Your task to perform on an android device: turn vacation reply on in the gmail app Image 0: 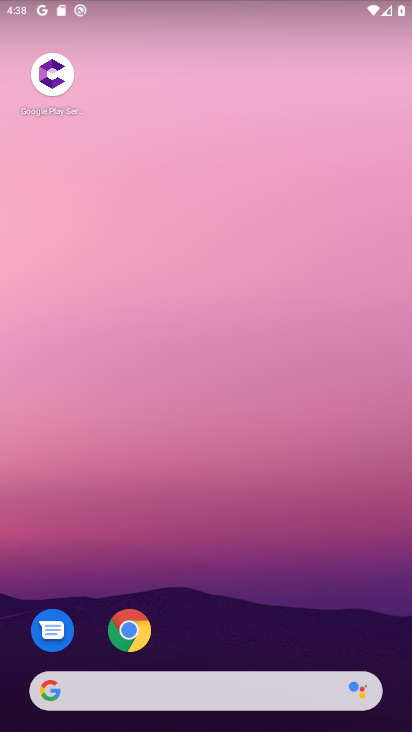
Step 0: press home button
Your task to perform on an android device: turn vacation reply on in the gmail app Image 1: 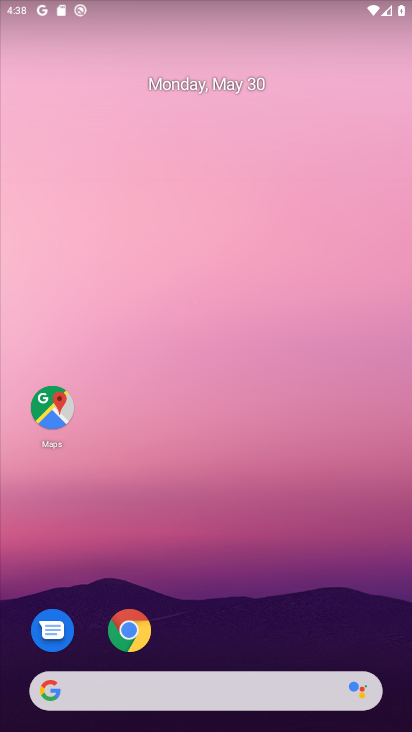
Step 1: drag from (246, 663) to (245, 349)
Your task to perform on an android device: turn vacation reply on in the gmail app Image 2: 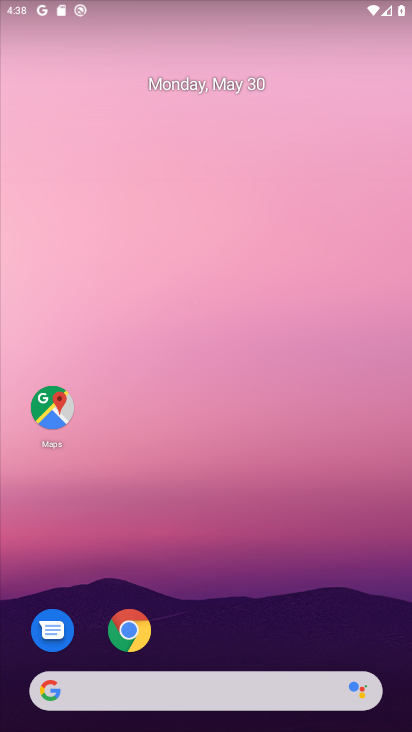
Step 2: drag from (230, 630) to (285, 216)
Your task to perform on an android device: turn vacation reply on in the gmail app Image 3: 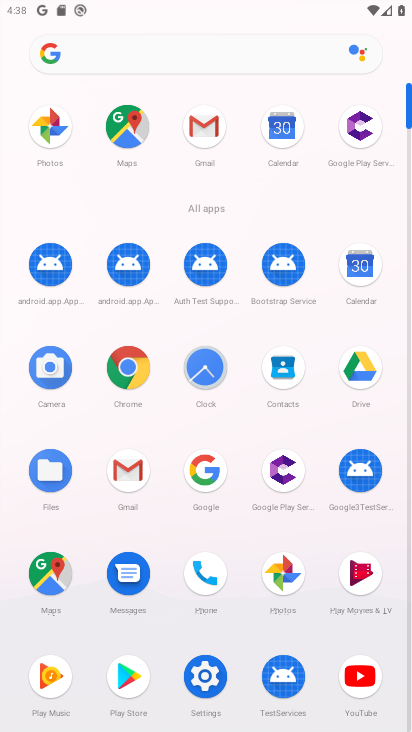
Step 3: click (209, 133)
Your task to perform on an android device: turn vacation reply on in the gmail app Image 4: 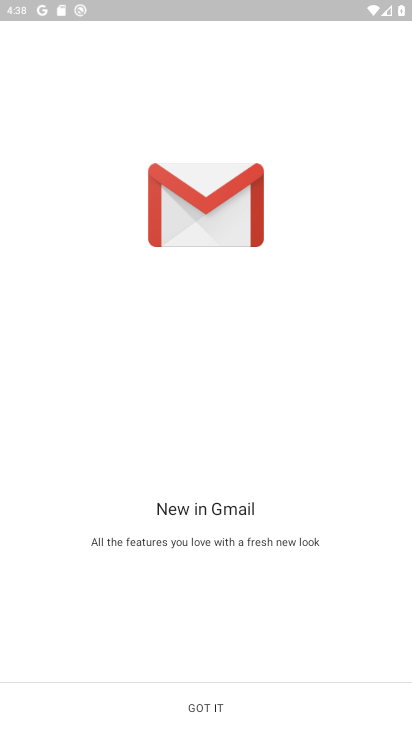
Step 4: click (203, 714)
Your task to perform on an android device: turn vacation reply on in the gmail app Image 5: 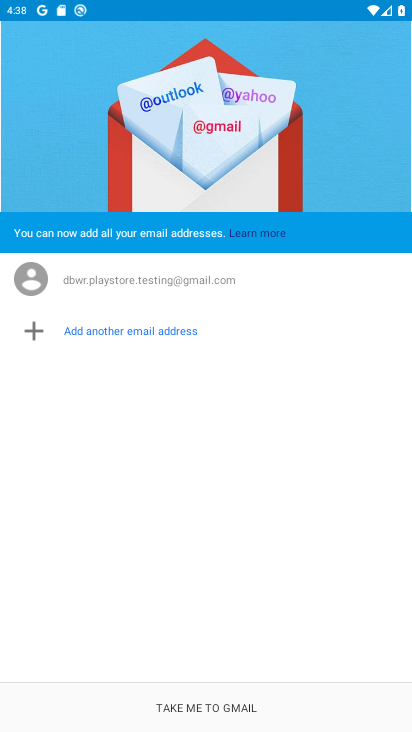
Step 5: click (203, 714)
Your task to perform on an android device: turn vacation reply on in the gmail app Image 6: 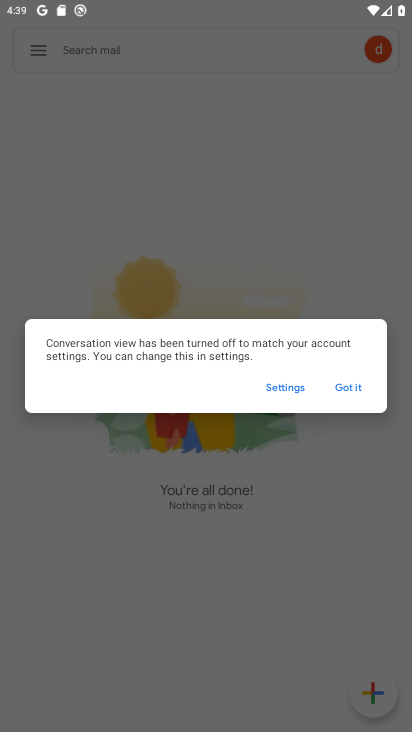
Step 6: click (369, 391)
Your task to perform on an android device: turn vacation reply on in the gmail app Image 7: 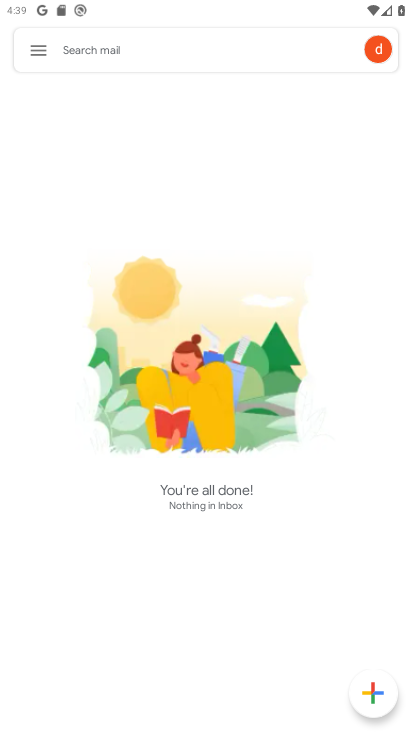
Step 7: click (49, 64)
Your task to perform on an android device: turn vacation reply on in the gmail app Image 8: 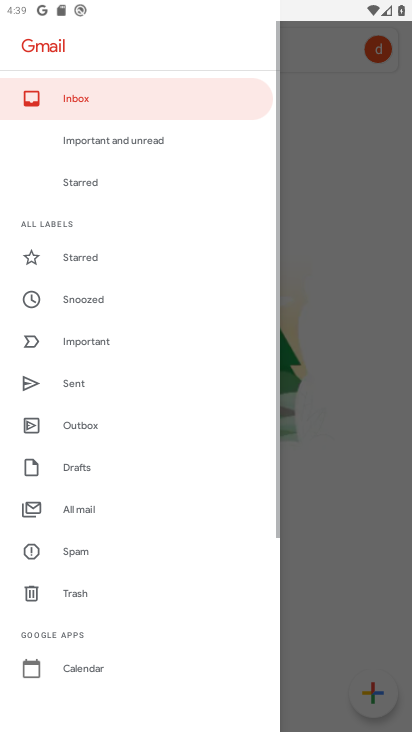
Step 8: drag from (145, 639) to (190, 374)
Your task to perform on an android device: turn vacation reply on in the gmail app Image 9: 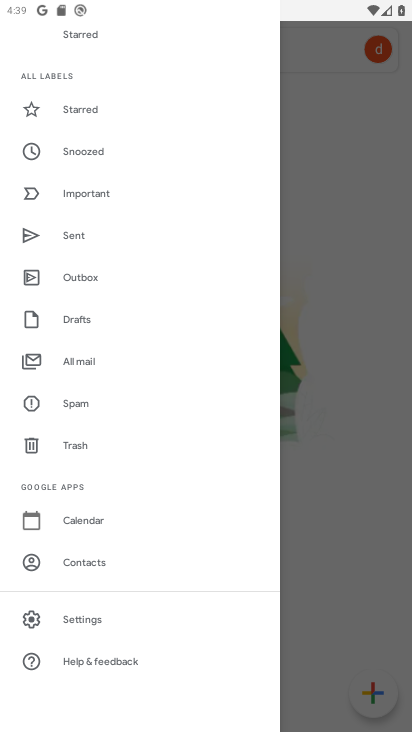
Step 9: click (75, 615)
Your task to perform on an android device: turn vacation reply on in the gmail app Image 10: 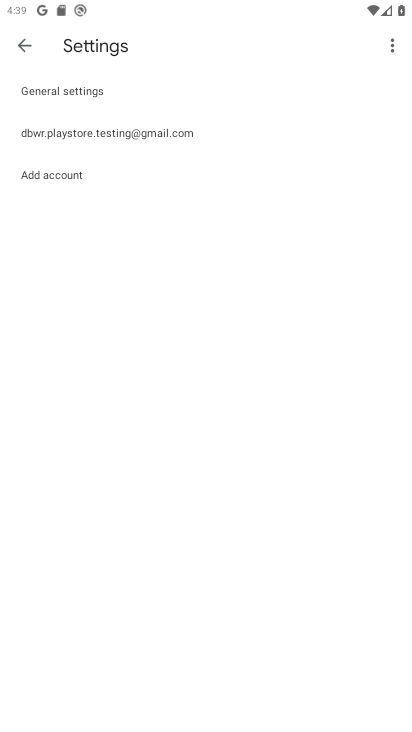
Step 10: click (93, 127)
Your task to perform on an android device: turn vacation reply on in the gmail app Image 11: 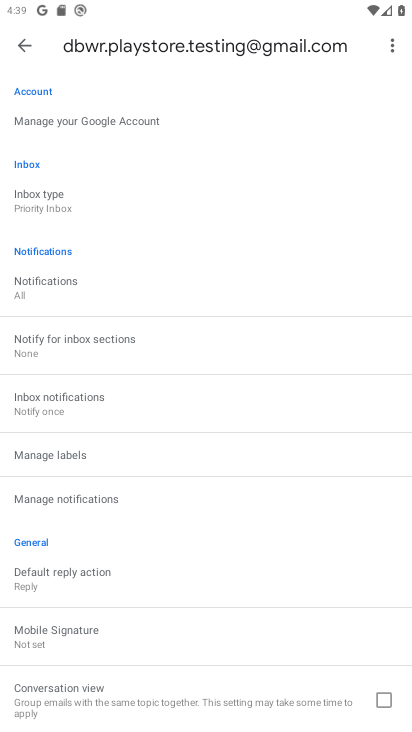
Step 11: drag from (192, 575) to (254, 190)
Your task to perform on an android device: turn vacation reply on in the gmail app Image 12: 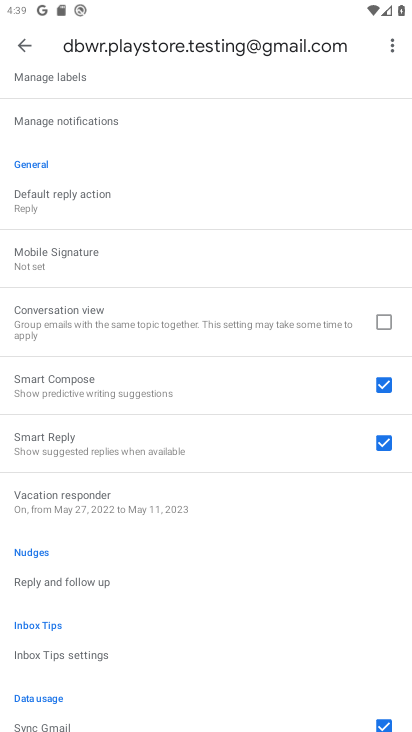
Step 12: click (64, 507)
Your task to perform on an android device: turn vacation reply on in the gmail app Image 13: 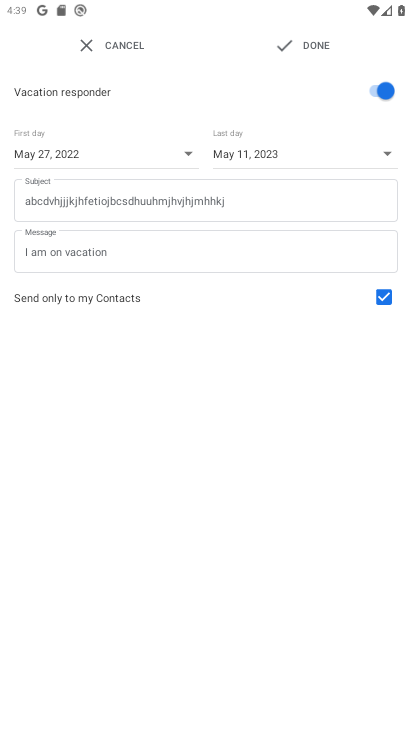
Step 13: task complete